Your task to perform on an android device: Look up the best rated headphones on Amazon. Image 0: 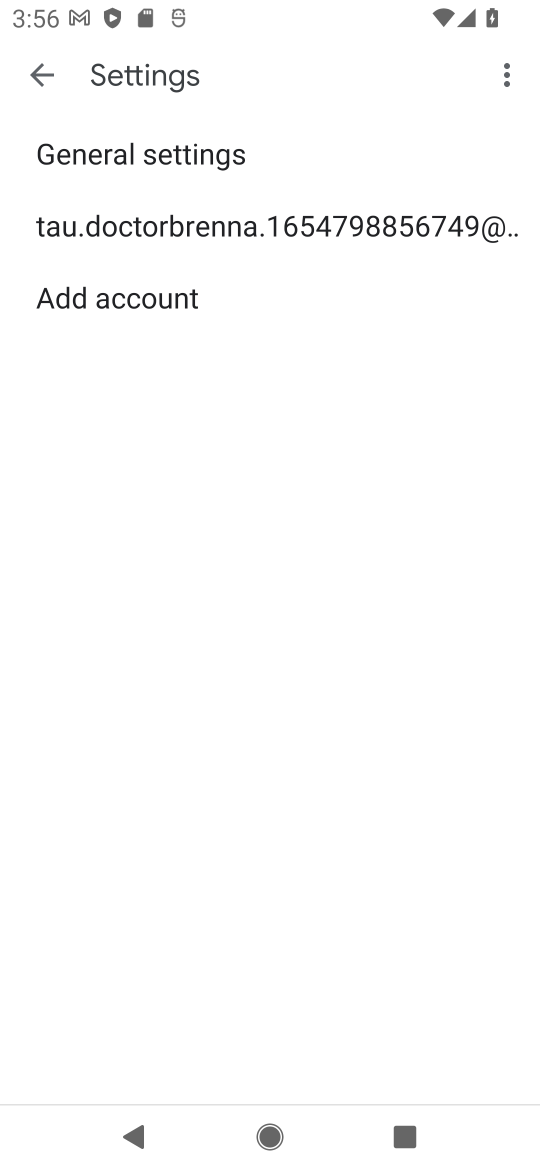
Step 0: press home button
Your task to perform on an android device: Look up the best rated headphones on Amazon. Image 1: 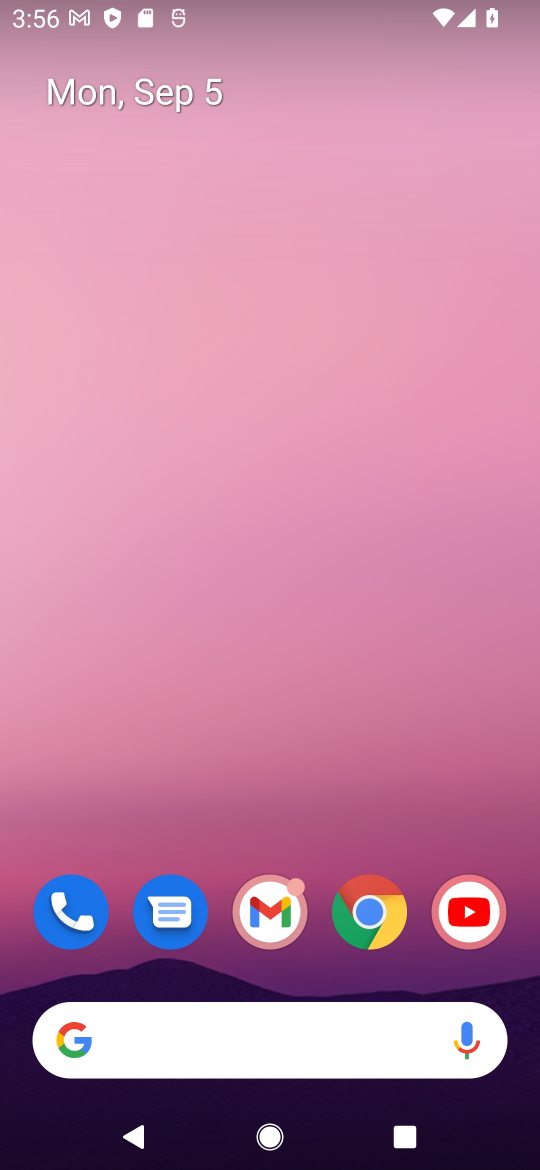
Step 1: click (359, 904)
Your task to perform on an android device: Look up the best rated headphones on Amazon. Image 2: 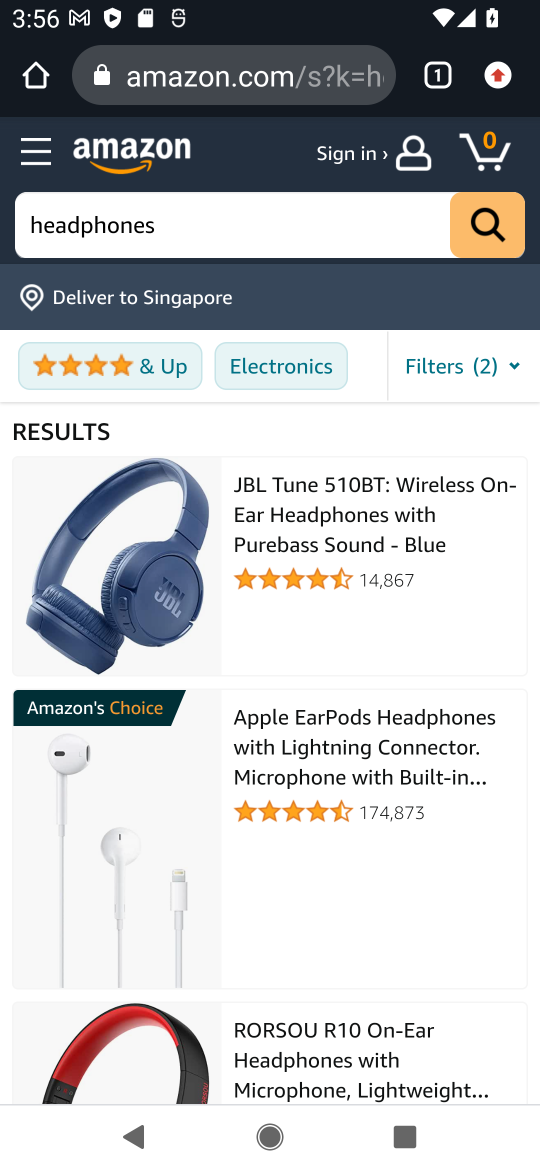
Step 2: click (251, 78)
Your task to perform on an android device: Look up the best rated headphones on Amazon. Image 3: 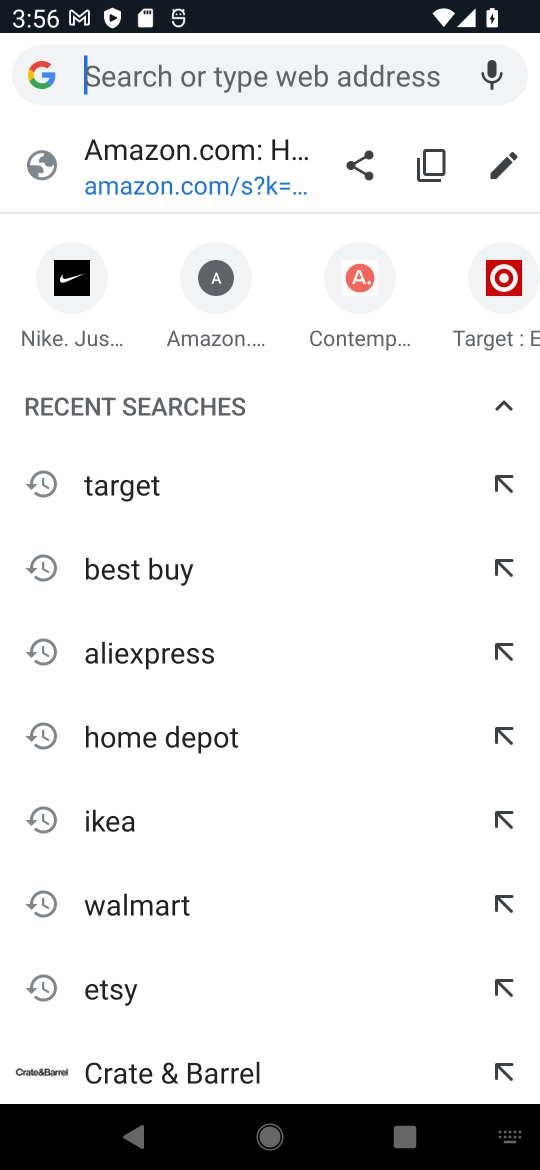
Step 3: type "amazon"
Your task to perform on an android device: Look up the best rated headphones on Amazon. Image 4: 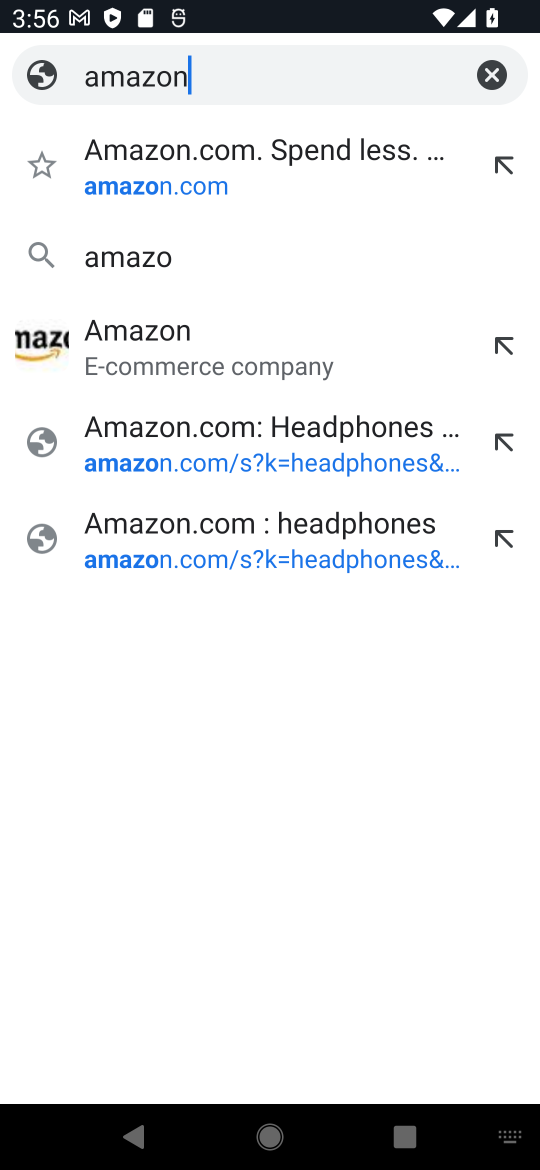
Step 4: type ""
Your task to perform on an android device: Look up the best rated headphones on Amazon. Image 5: 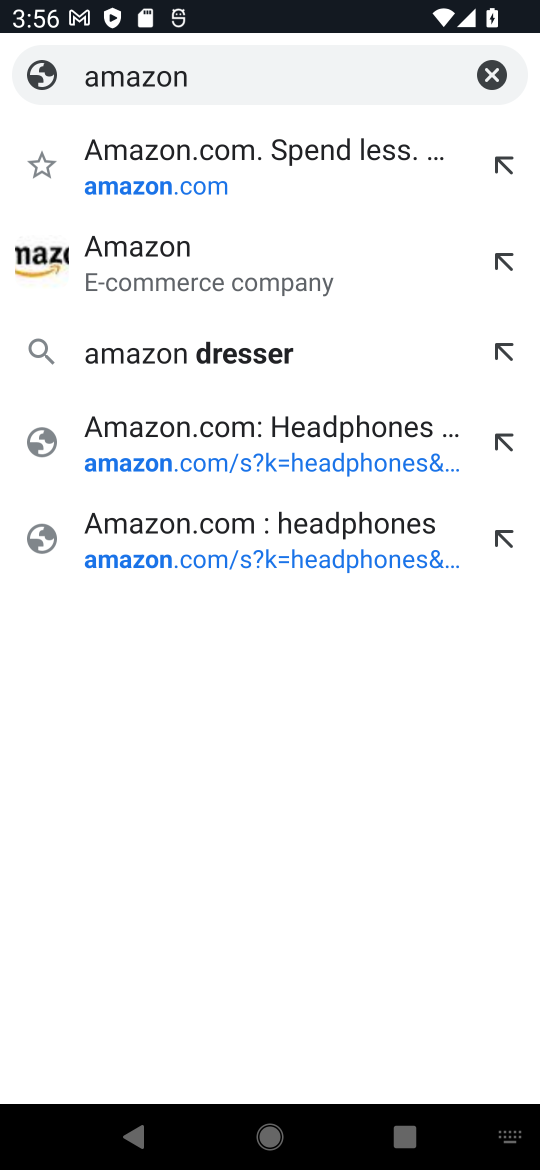
Step 5: press enter
Your task to perform on an android device: Look up the best rated headphones on Amazon. Image 6: 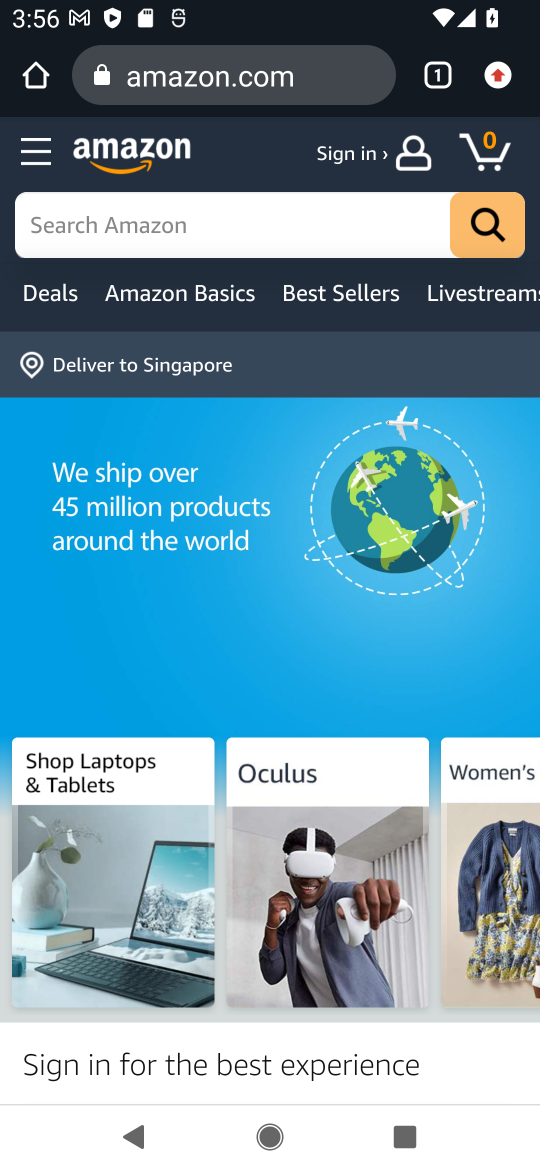
Step 6: click (213, 213)
Your task to perform on an android device: Look up the best rated headphones on Amazon. Image 7: 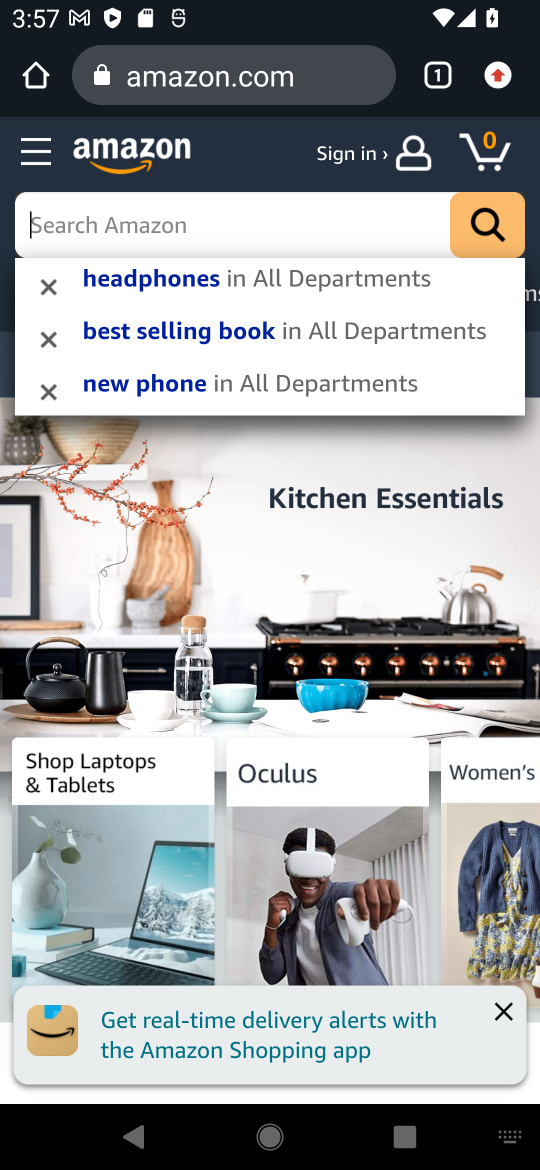
Step 7: click (287, 277)
Your task to perform on an android device: Look up the best rated headphones on Amazon. Image 8: 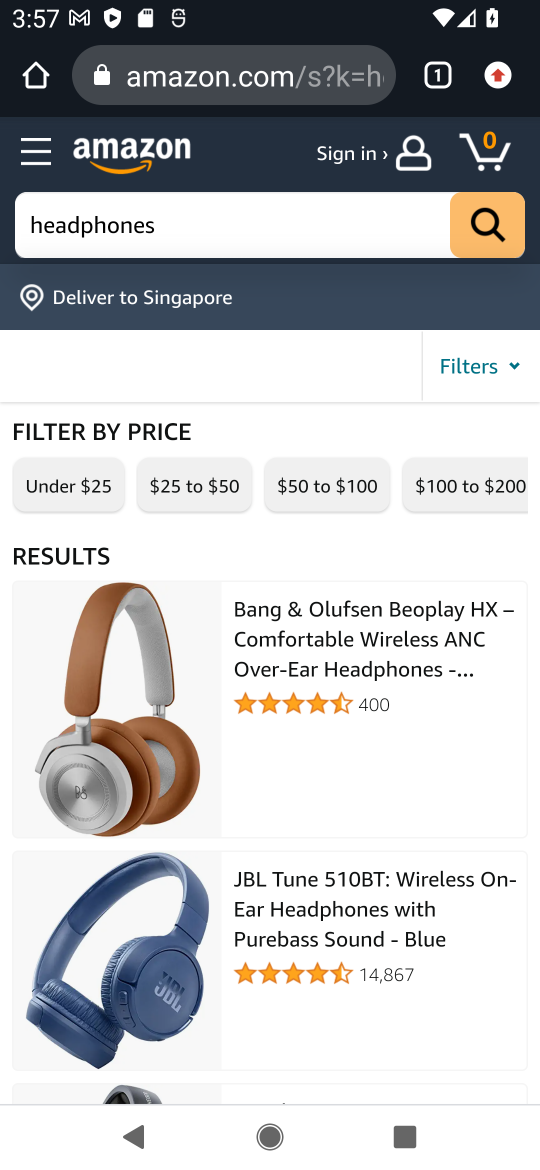
Step 8: press enter
Your task to perform on an android device: Look up the best rated headphones on Amazon. Image 9: 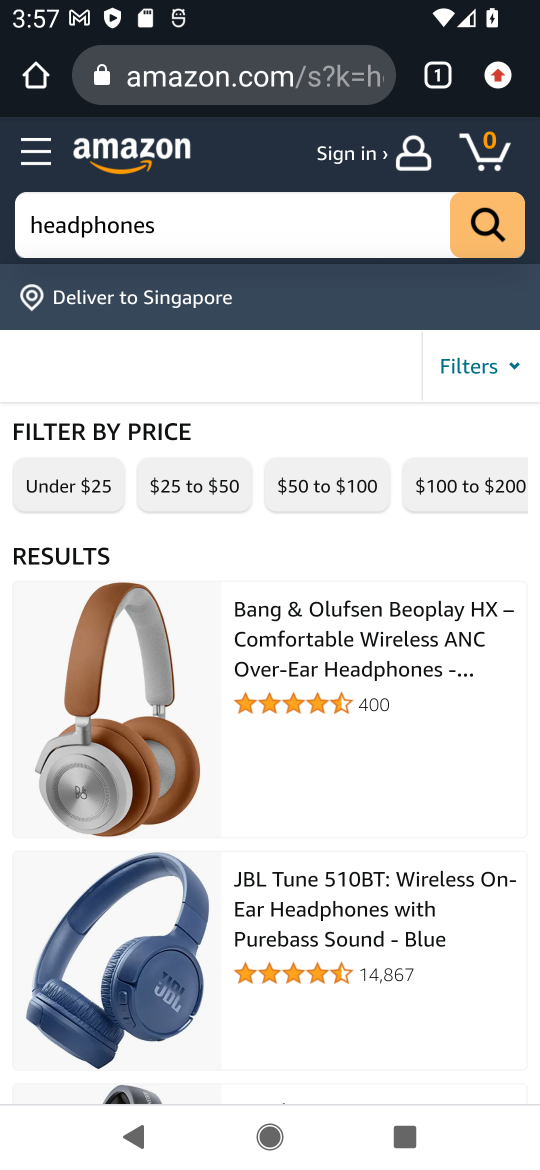
Step 9: click (445, 368)
Your task to perform on an android device: Look up the best rated headphones on Amazon. Image 10: 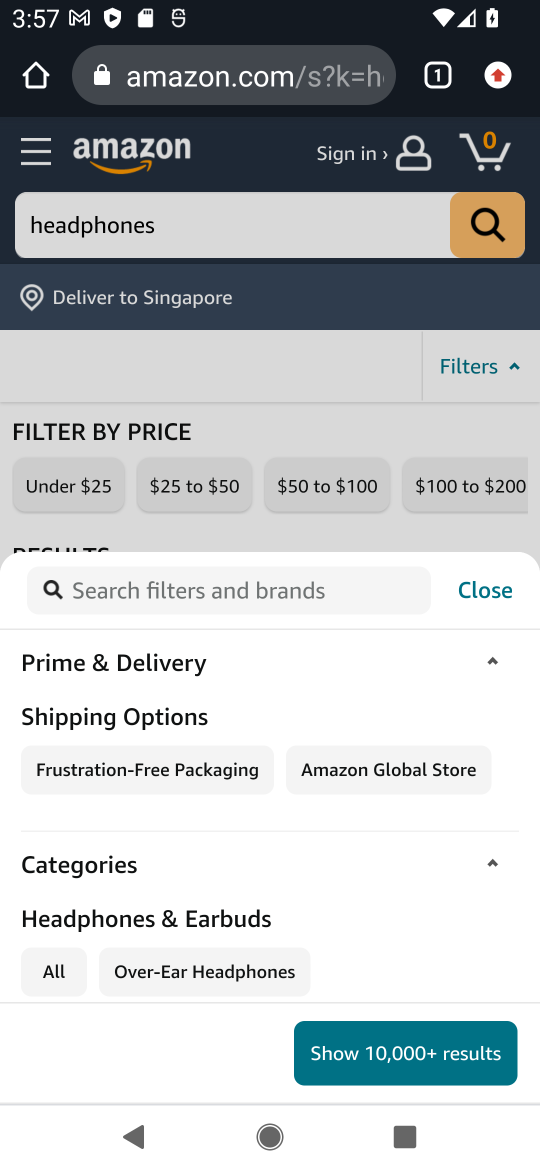
Step 10: drag from (416, 894) to (400, 628)
Your task to perform on an android device: Look up the best rated headphones on Amazon. Image 11: 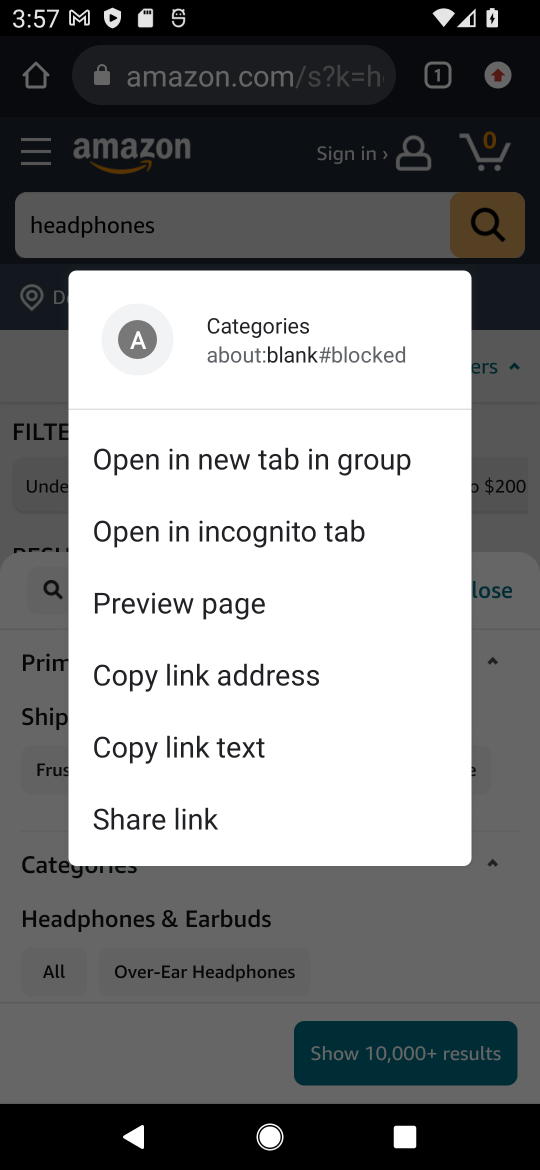
Step 11: click (37, 667)
Your task to perform on an android device: Look up the best rated headphones on Amazon. Image 12: 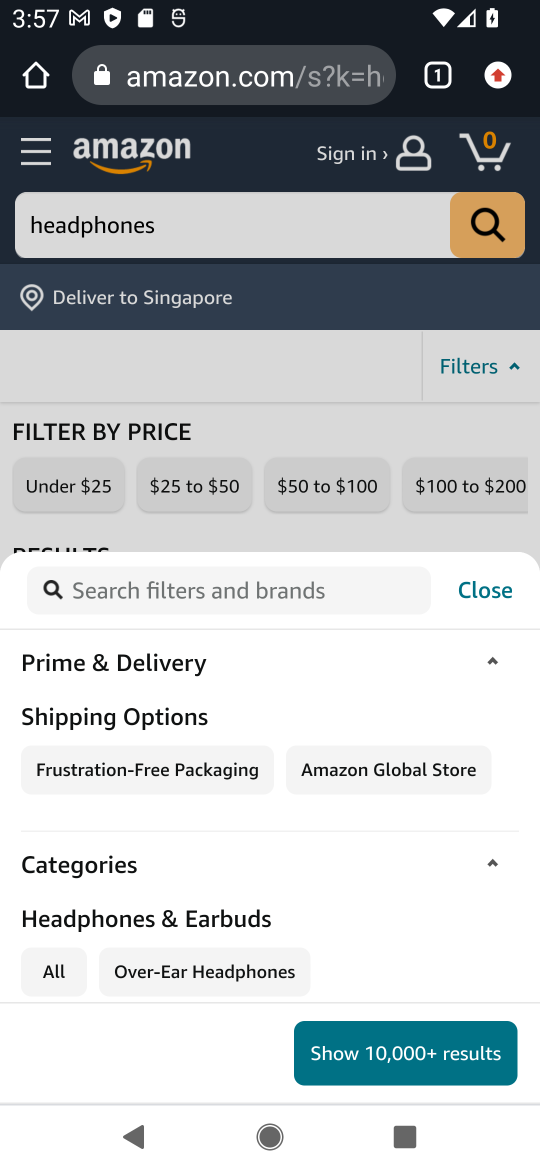
Step 12: click (176, 603)
Your task to perform on an android device: Look up the best rated headphones on Amazon. Image 13: 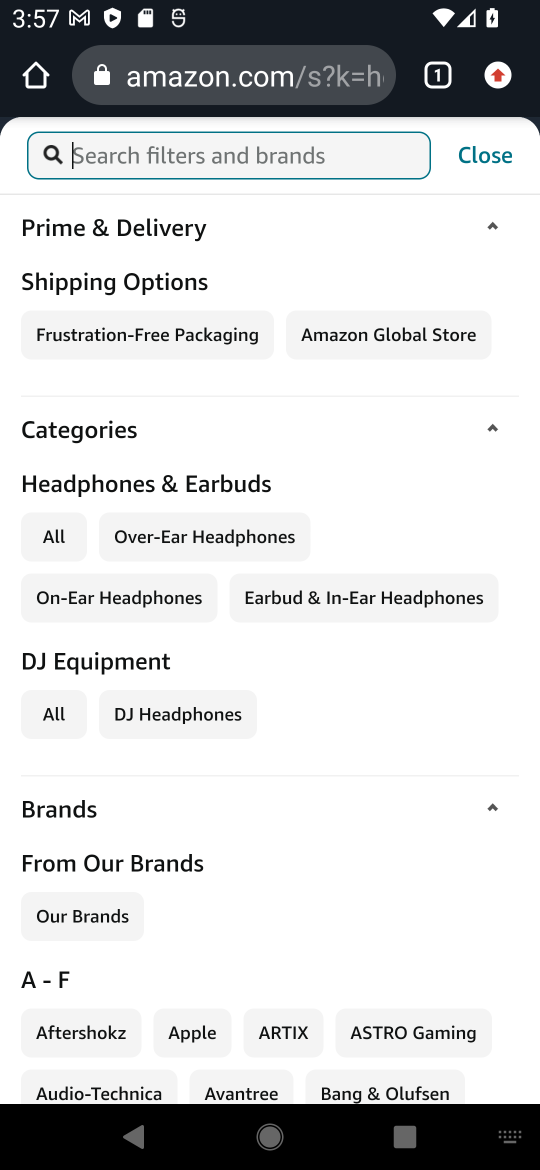
Step 13: type "rev"
Your task to perform on an android device: Look up the best rated headphones on Amazon. Image 14: 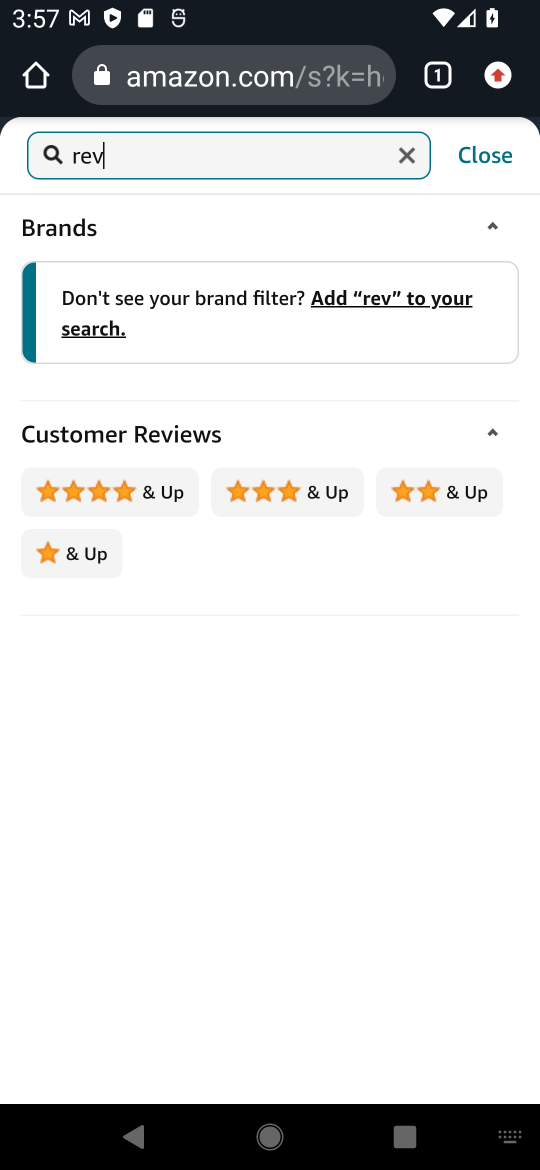
Step 14: click (146, 481)
Your task to perform on an android device: Look up the best rated headphones on Amazon. Image 15: 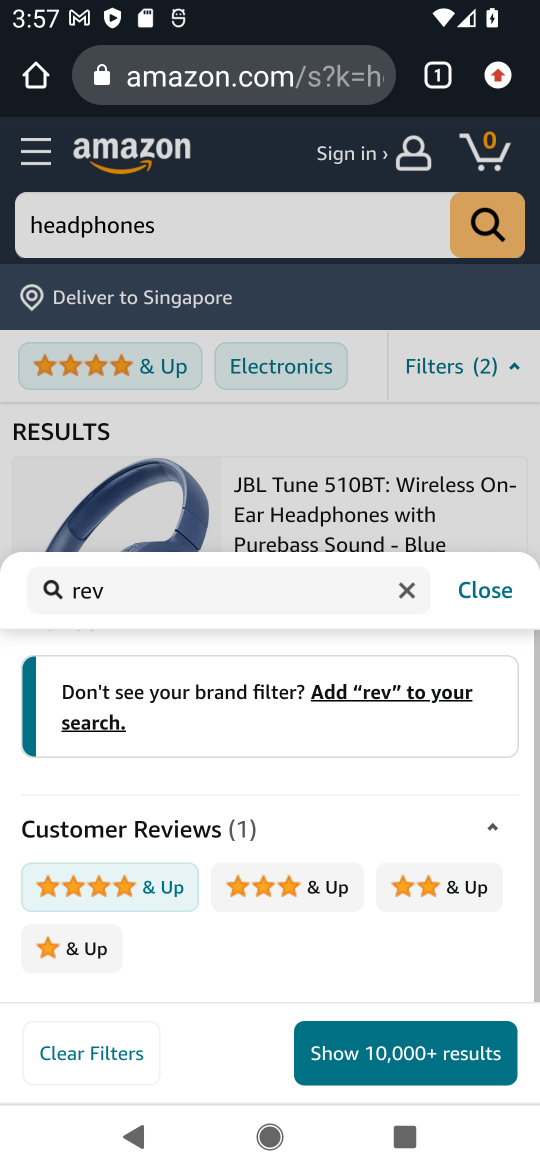
Step 15: click (451, 1046)
Your task to perform on an android device: Look up the best rated headphones on Amazon. Image 16: 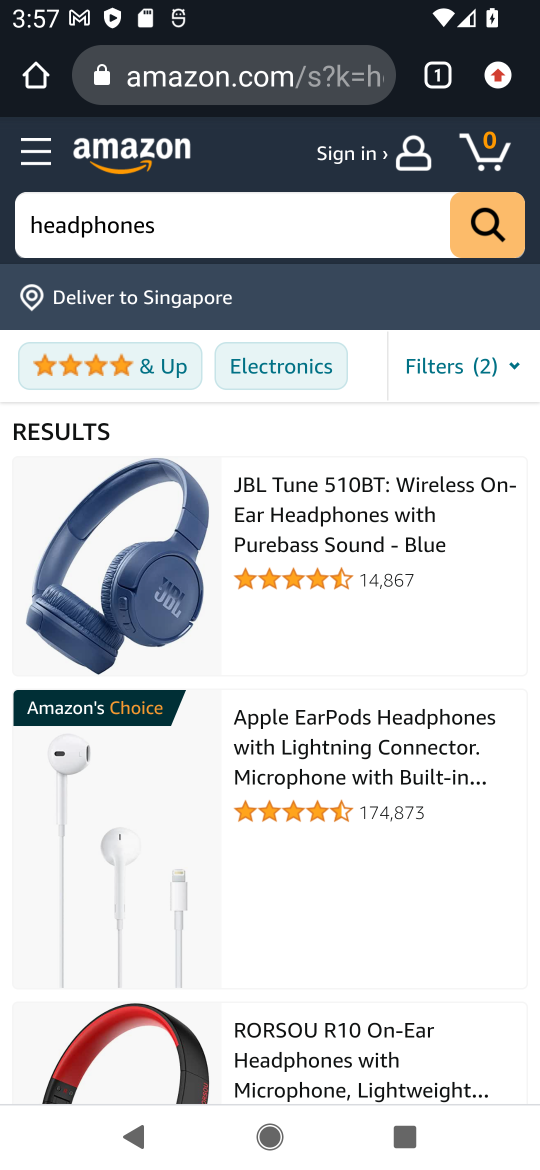
Step 16: task complete